Your task to perform on an android device: Go to Wikipedia Image 0: 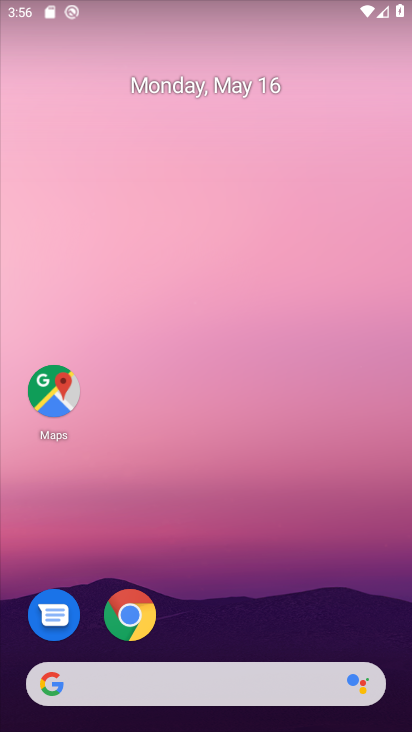
Step 0: click (121, 631)
Your task to perform on an android device: Go to Wikipedia Image 1: 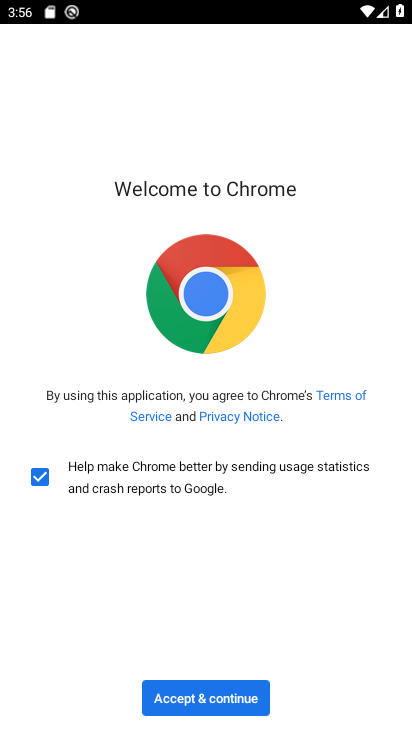
Step 1: click (167, 700)
Your task to perform on an android device: Go to Wikipedia Image 2: 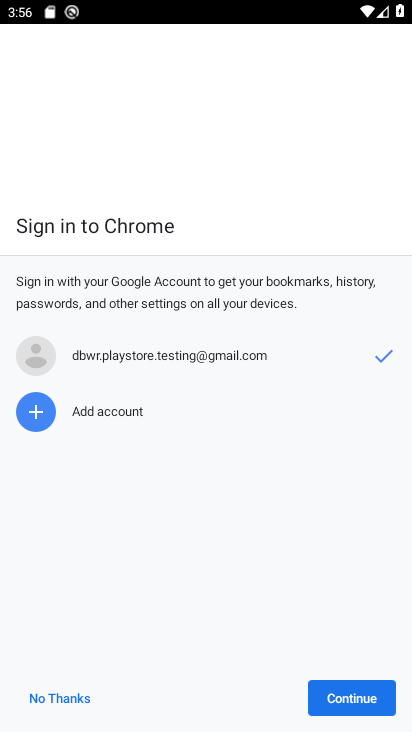
Step 2: click (366, 713)
Your task to perform on an android device: Go to Wikipedia Image 3: 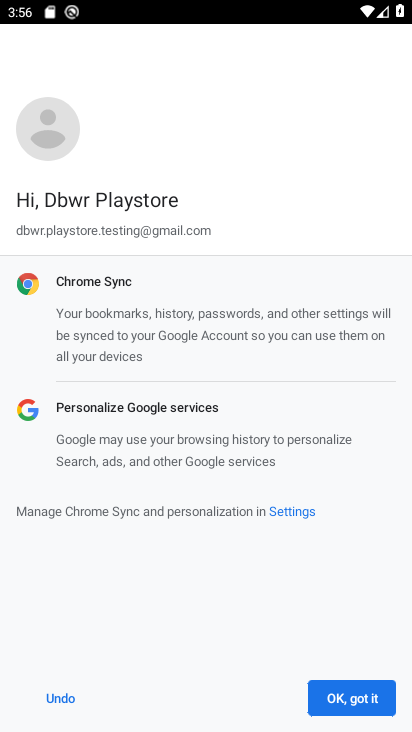
Step 3: click (365, 711)
Your task to perform on an android device: Go to Wikipedia Image 4: 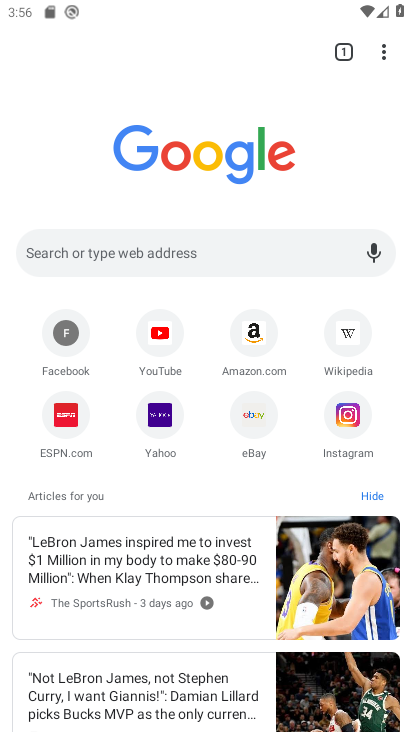
Step 4: click (346, 342)
Your task to perform on an android device: Go to Wikipedia Image 5: 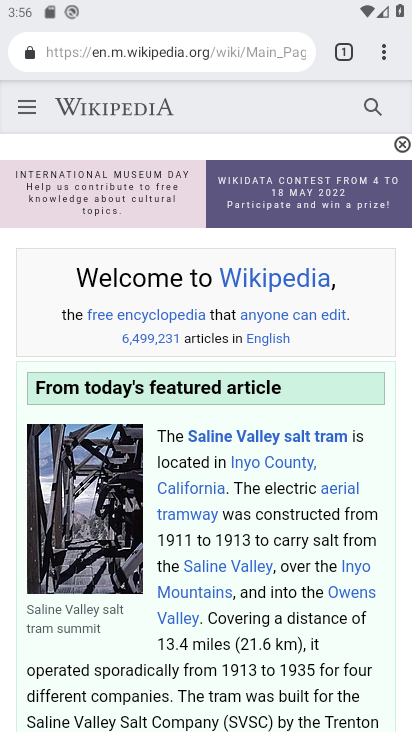
Step 5: task complete